Your task to perform on an android device: check out phone information Image 0: 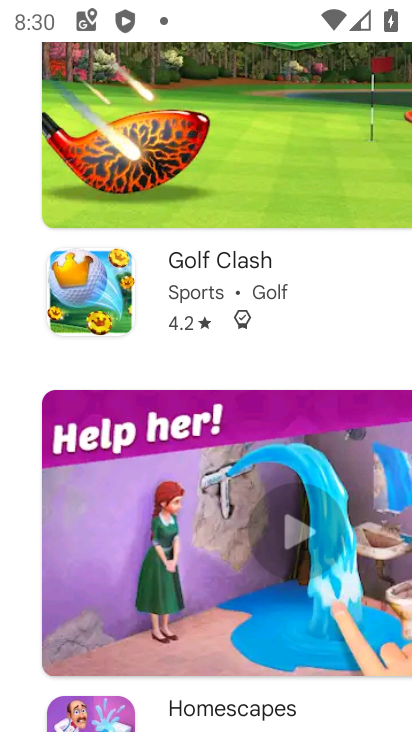
Step 0: press home button
Your task to perform on an android device: check out phone information Image 1: 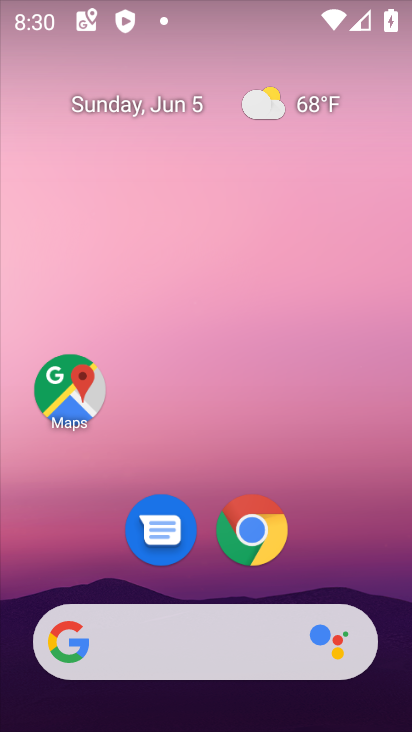
Step 1: drag from (388, 614) to (322, 54)
Your task to perform on an android device: check out phone information Image 2: 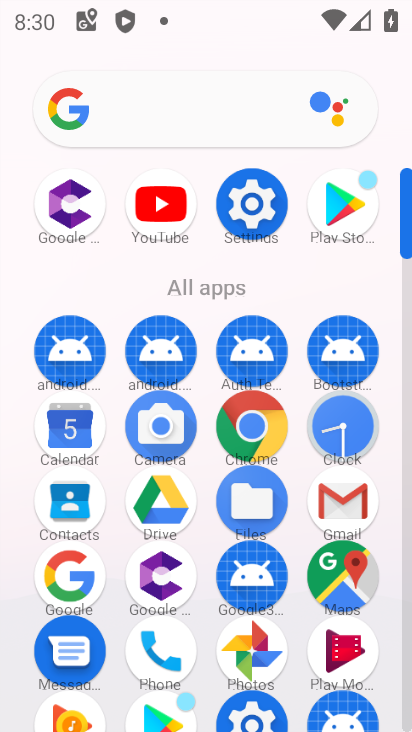
Step 2: click (406, 698)
Your task to perform on an android device: check out phone information Image 3: 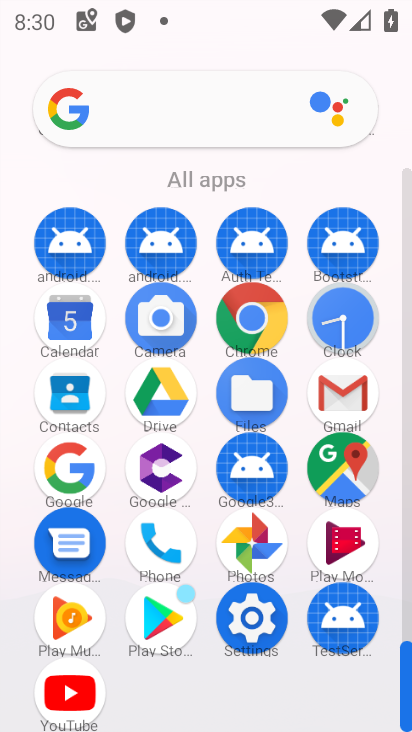
Step 3: click (251, 616)
Your task to perform on an android device: check out phone information Image 4: 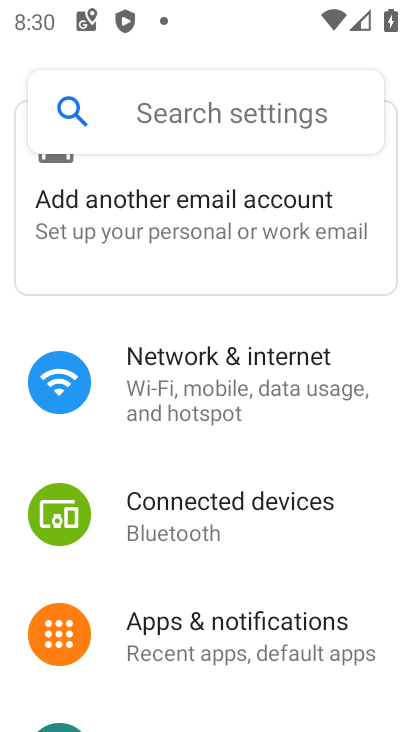
Step 4: drag from (381, 676) to (343, 103)
Your task to perform on an android device: check out phone information Image 5: 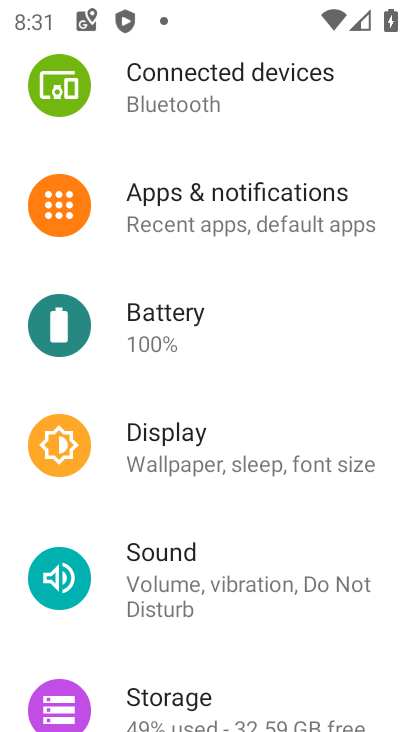
Step 5: drag from (321, 634) to (343, 233)
Your task to perform on an android device: check out phone information Image 6: 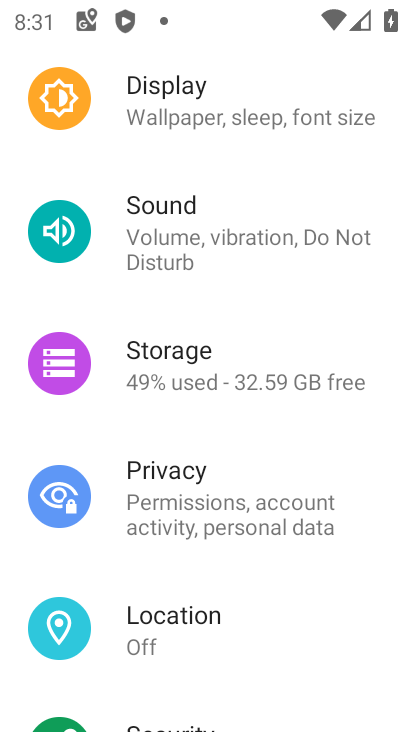
Step 6: drag from (364, 638) to (380, 67)
Your task to perform on an android device: check out phone information Image 7: 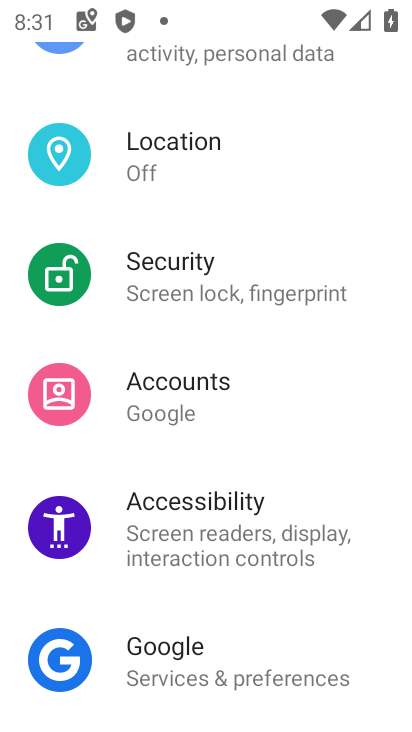
Step 7: drag from (337, 625) to (352, 133)
Your task to perform on an android device: check out phone information Image 8: 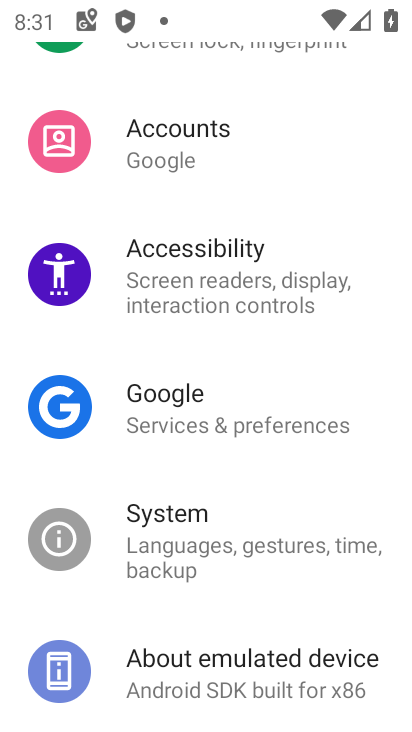
Step 8: drag from (334, 617) to (342, 211)
Your task to perform on an android device: check out phone information Image 9: 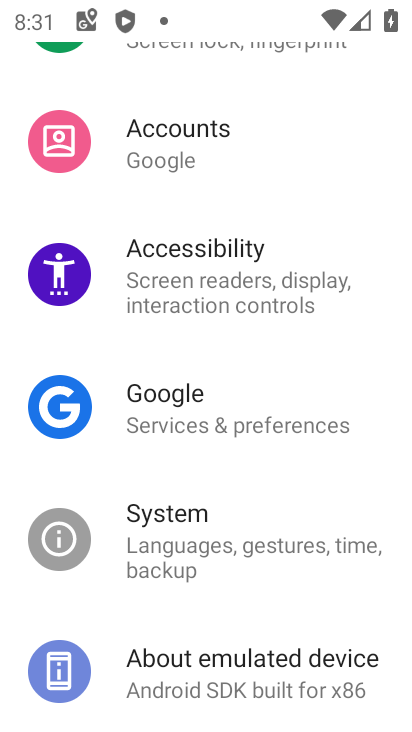
Step 9: click (237, 654)
Your task to perform on an android device: check out phone information Image 10: 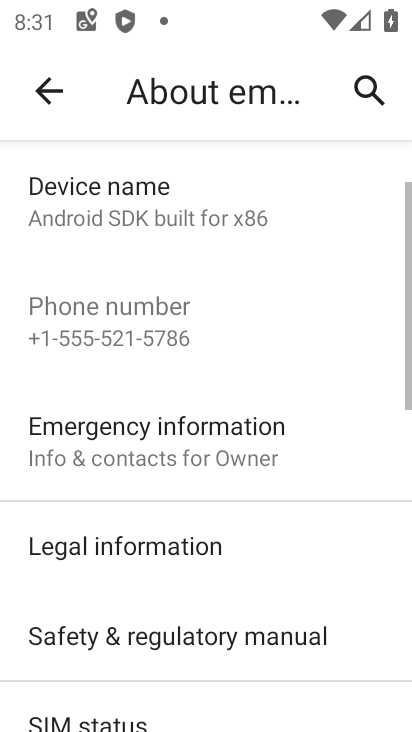
Step 10: click (158, 439)
Your task to perform on an android device: check out phone information Image 11: 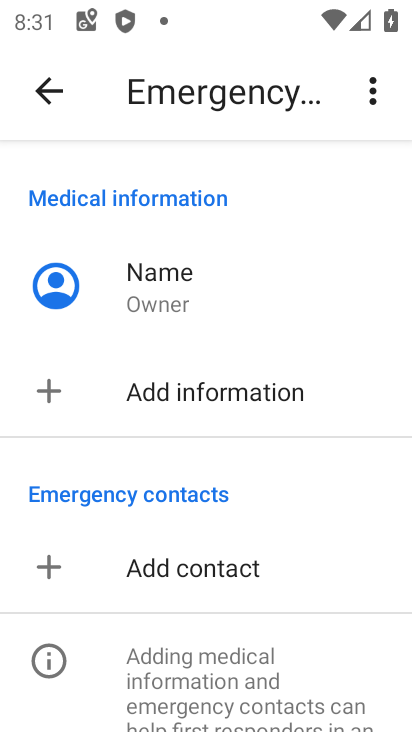
Step 11: task complete